Your task to perform on an android device: open a new tab in the chrome app Image 0: 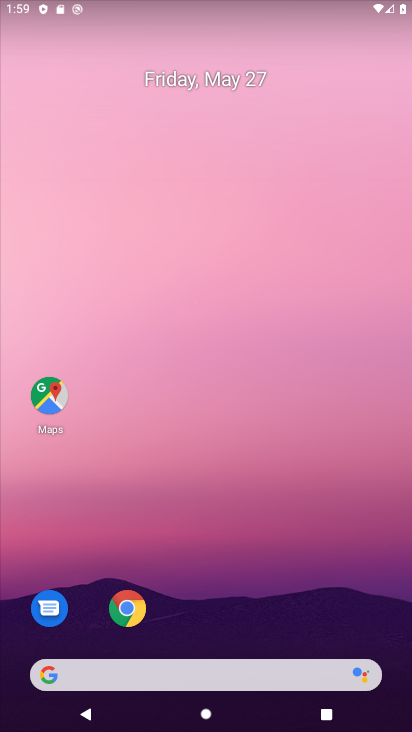
Step 0: click (121, 611)
Your task to perform on an android device: open a new tab in the chrome app Image 1: 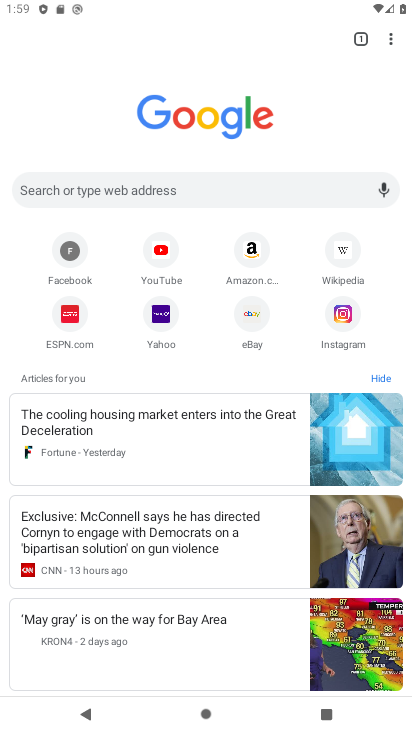
Step 1: click (367, 34)
Your task to perform on an android device: open a new tab in the chrome app Image 2: 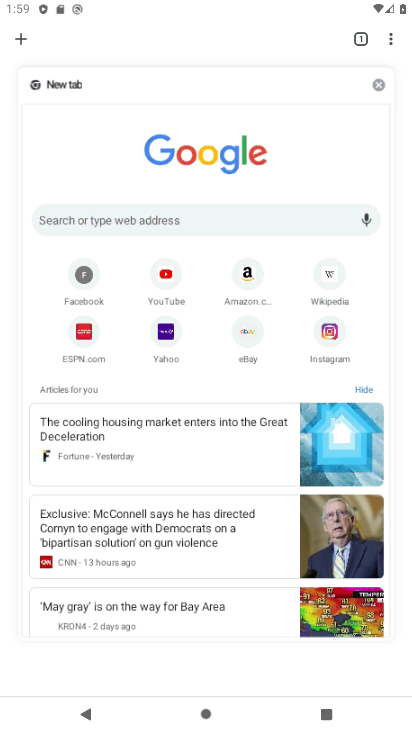
Step 2: click (18, 39)
Your task to perform on an android device: open a new tab in the chrome app Image 3: 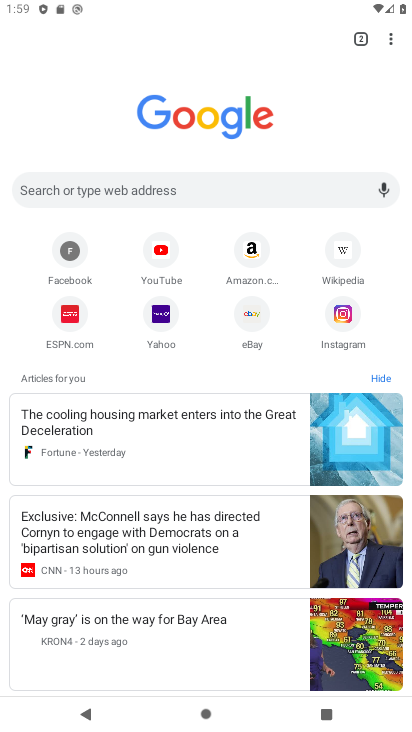
Step 3: task complete